Your task to perform on an android device: What's the weather today? Image 0: 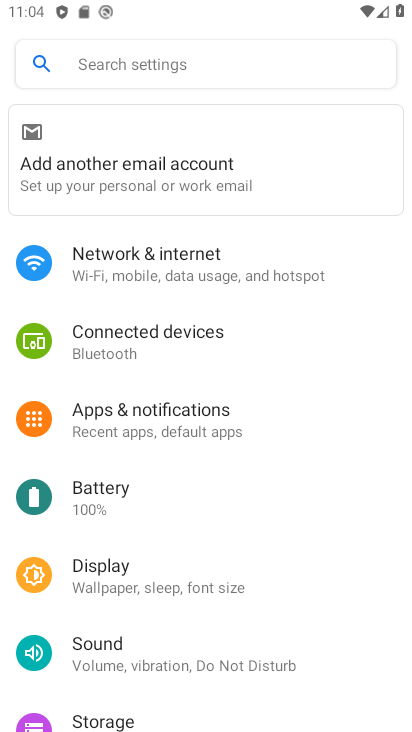
Step 0: press back button
Your task to perform on an android device: What's the weather today? Image 1: 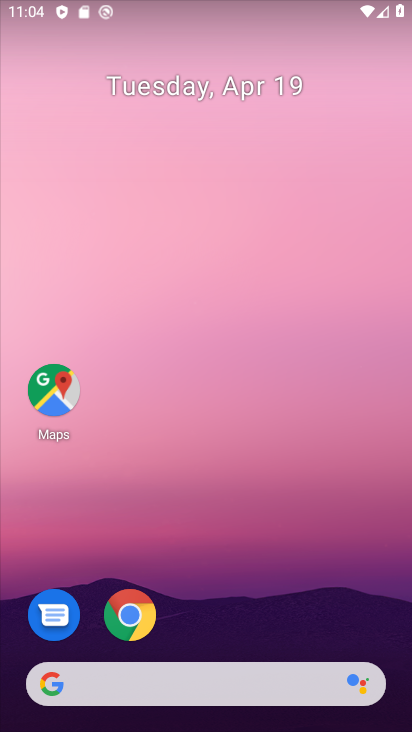
Step 1: drag from (153, 533) to (176, 235)
Your task to perform on an android device: What's the weather today? Image 2: 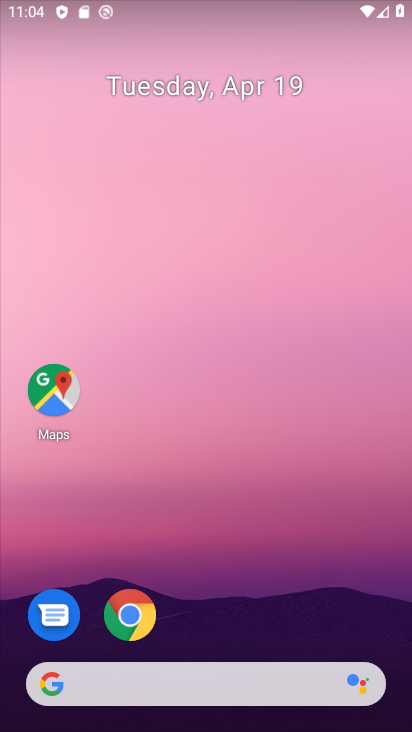
Step 2: drag from (217, 654) to (206, 235)
Your task to perform on an android device: What's the weather today? Image 3: 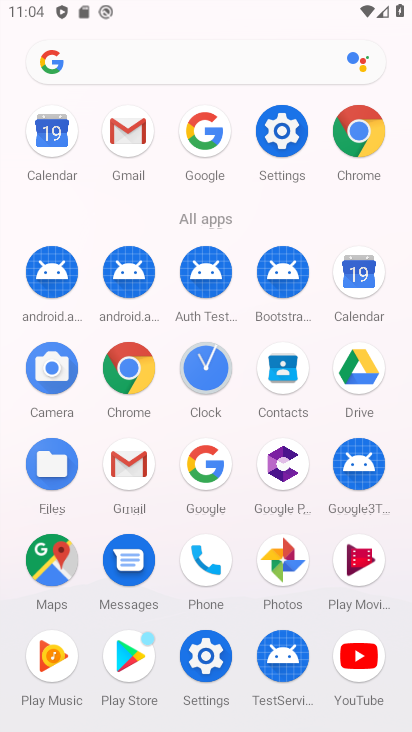
Step 3: click (227, 462)
Your task to perform on an android device: What's the weather today? Image 4: 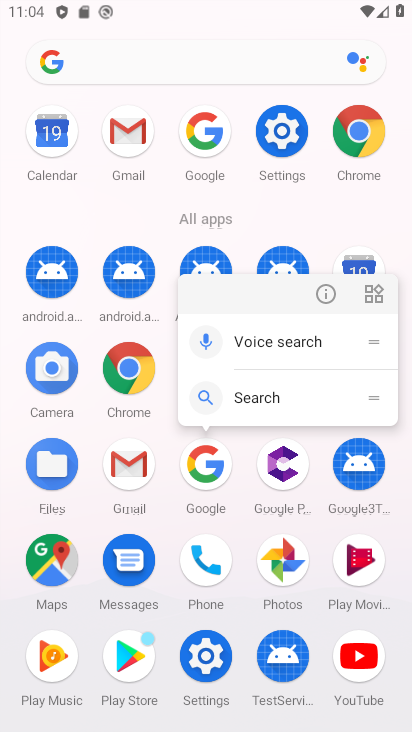
Step 4: click (202, 464)
Your task to perform on an android device: What's the weather today? Image 5: 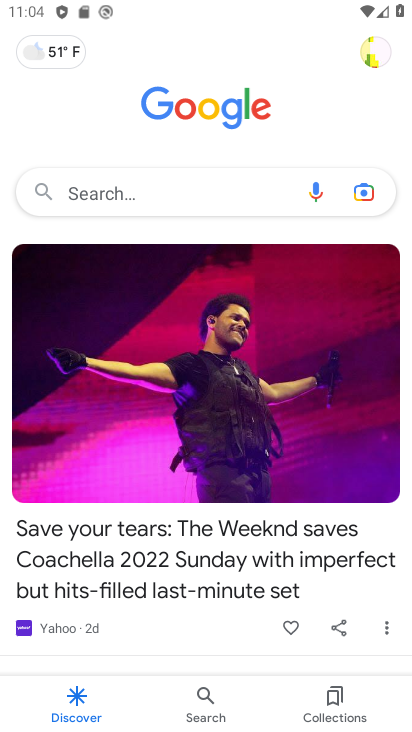
Step 5: drag from (255, 212) to (243, 29)
Your task to perform on an android device: What's the weather today? Image 6: 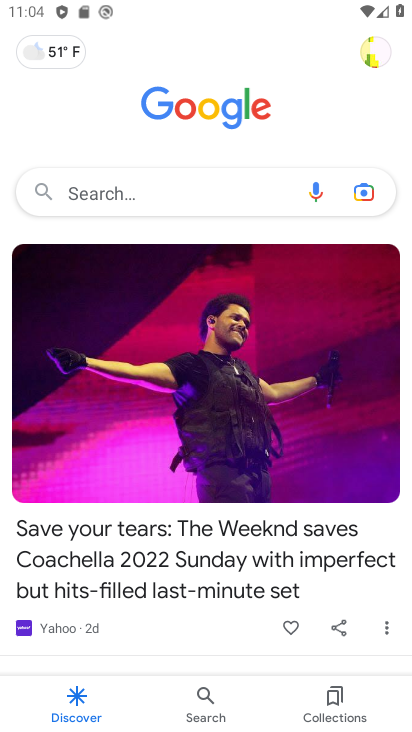
Step 6: drag from (242, 254) to (253, 579)
Your task to perform on an android device: What's the weather today? Image 7: 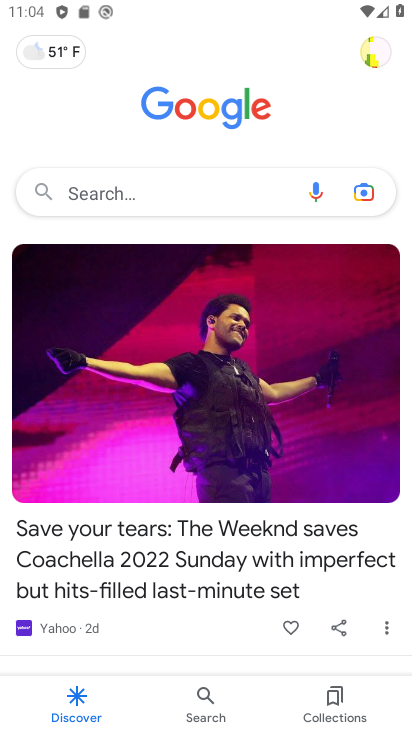
Step 7: drag from (159, 235) to (206, 570)
Your task to perform on an android device: What's the weather today? Image 8: 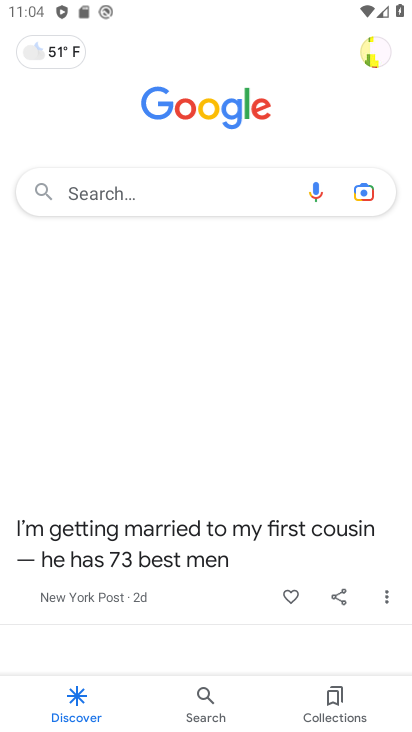
Step 8: click (34, 51)
Your task to perform on an android device: What's the weather today? Image 9: 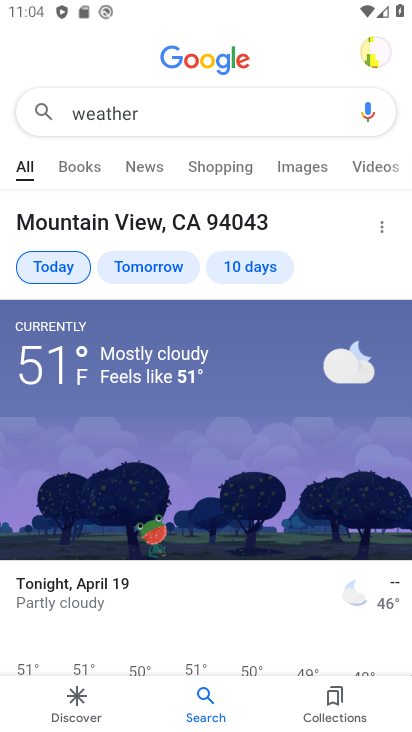
Step 9: task complete